Your task to perform on an android device: set an alarm Image 0: 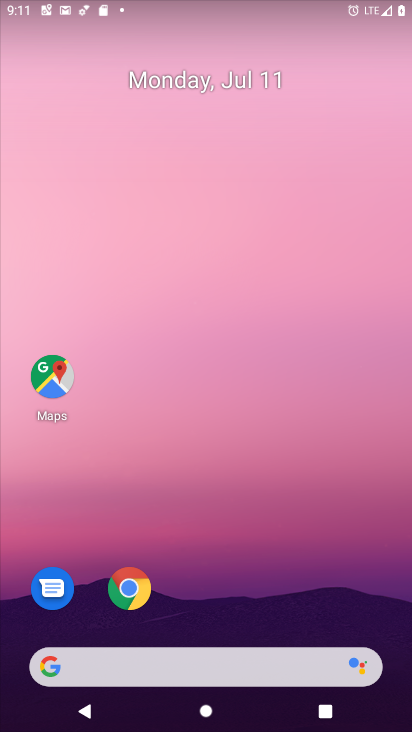
Step 0: drag from (226, 660) to (341, 37)
Your task to perform on an android device: set an alarm Image 1: 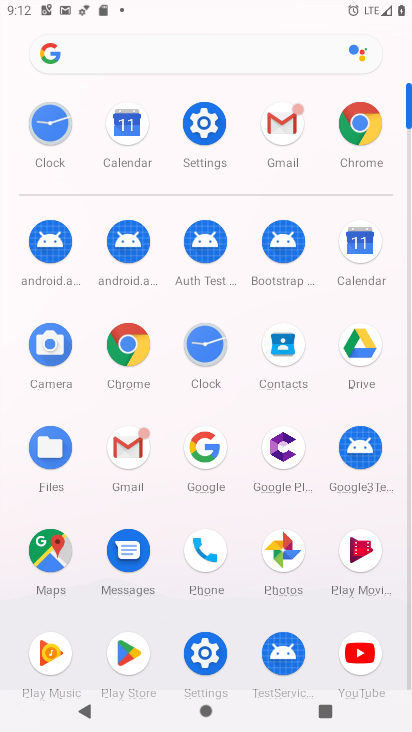
Step 1: click (213, 347)
Your task to perform on an android device: set an alarm Image 2: 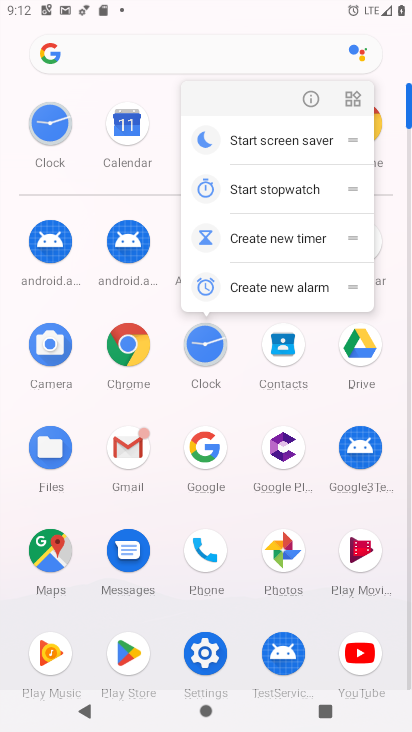
Step 2: click (195, 347)
Your task to perform on an android device: set an alarm Image 3: 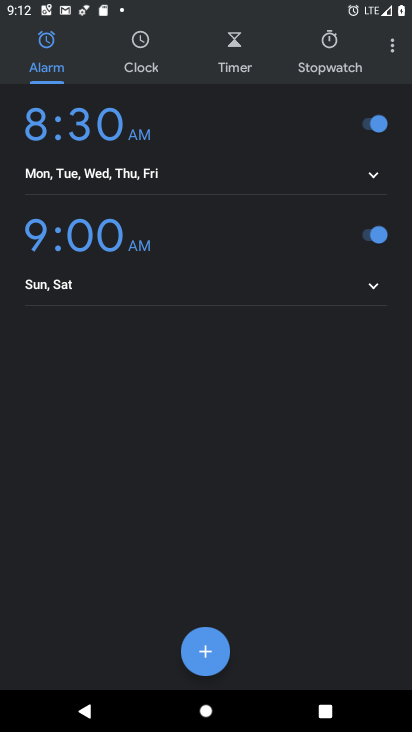
Step 3: click (211, 649)
Your task to perform on an android device: set an alarm Image 4: 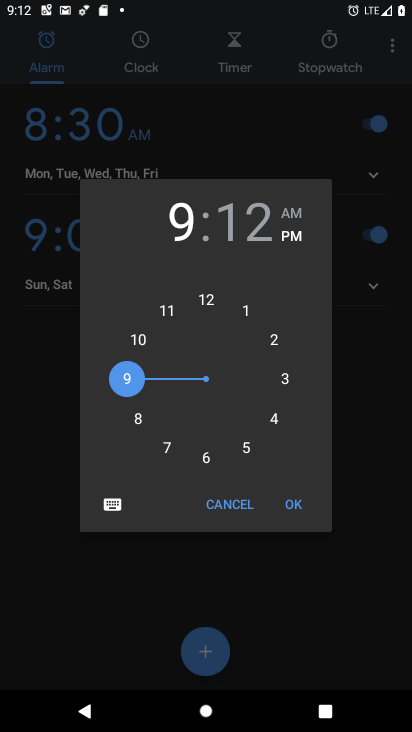
Step 4: drag from (127, 375) to (166, 313)
Your task to perform on an android device: set an alarm Image 5: 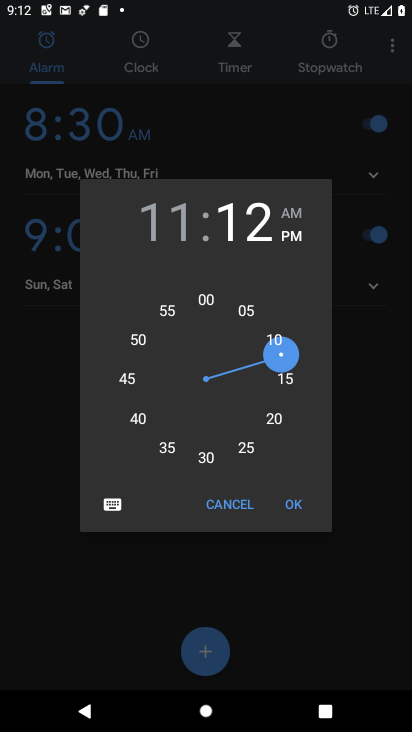
Step 5: drag from (286, 346) to (252, 301)
Your task to perform on an android device: set an alarm Image 6: 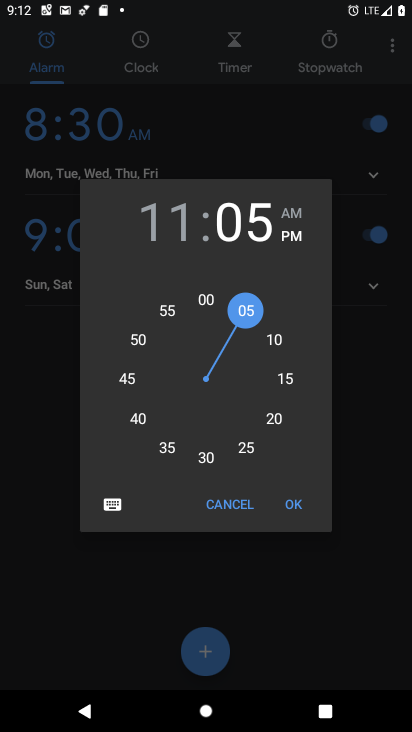
Step 6: click (288, 508)
Your task to perform on an android device: set an alarm Image 7: 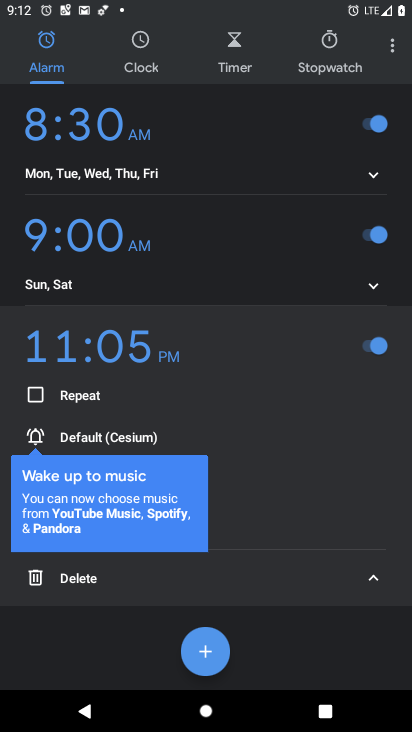
Step 7: task complete